Your task to perform on an android device: remove spam from my inbox in the gmail app Image 0: 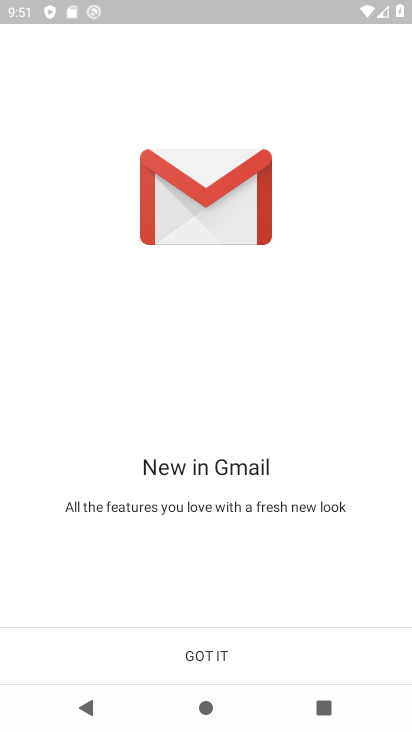
Step 0: click (225, 648)
Your task to perform on an android device: remove spam from my inbox in the gmail app Image 1: 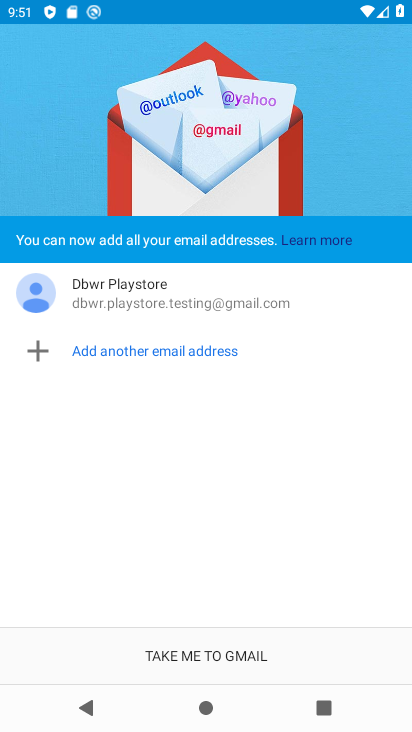
Step 1: click (228, 657)
Your task to perform on an android device: remove spam from my inbox in the gmail app Image 2: 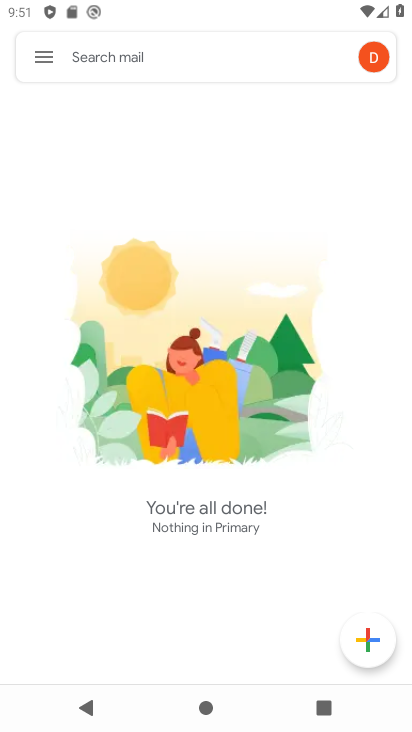
Step 2: click (30, 33)
Your task to perform on an android device: remove spam from my inbox in the gmail app Image 3: 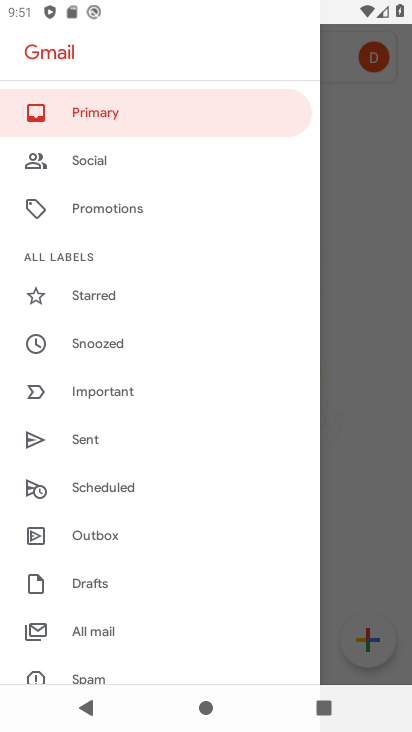
Step 3: drag from (140, 598) to (187, 498)
Your task to perform on an android device: remove spam from my inbox in the gmail app Image 4: 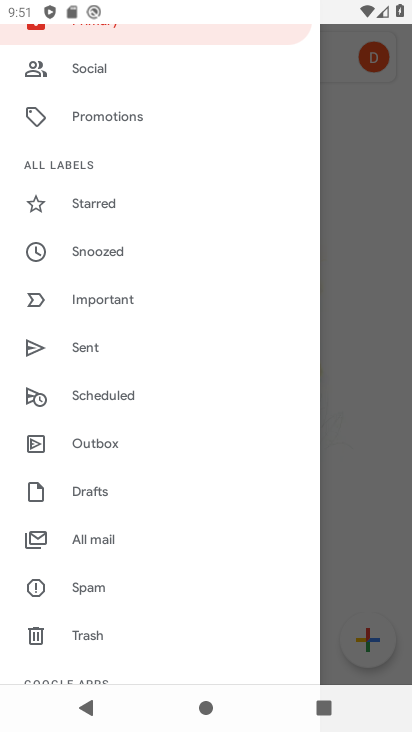
Step 4: click (120, 591)
Your task to perform on an android device: remove spam from my inbox in the gmail app Image 5: 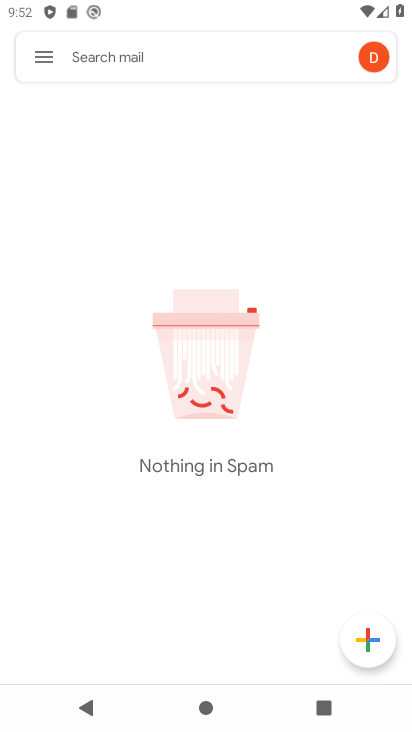
Step 5: task complete